Your task to perform on an android device: uninstall "HBO Max: Stream TV & Movies" Image 0: 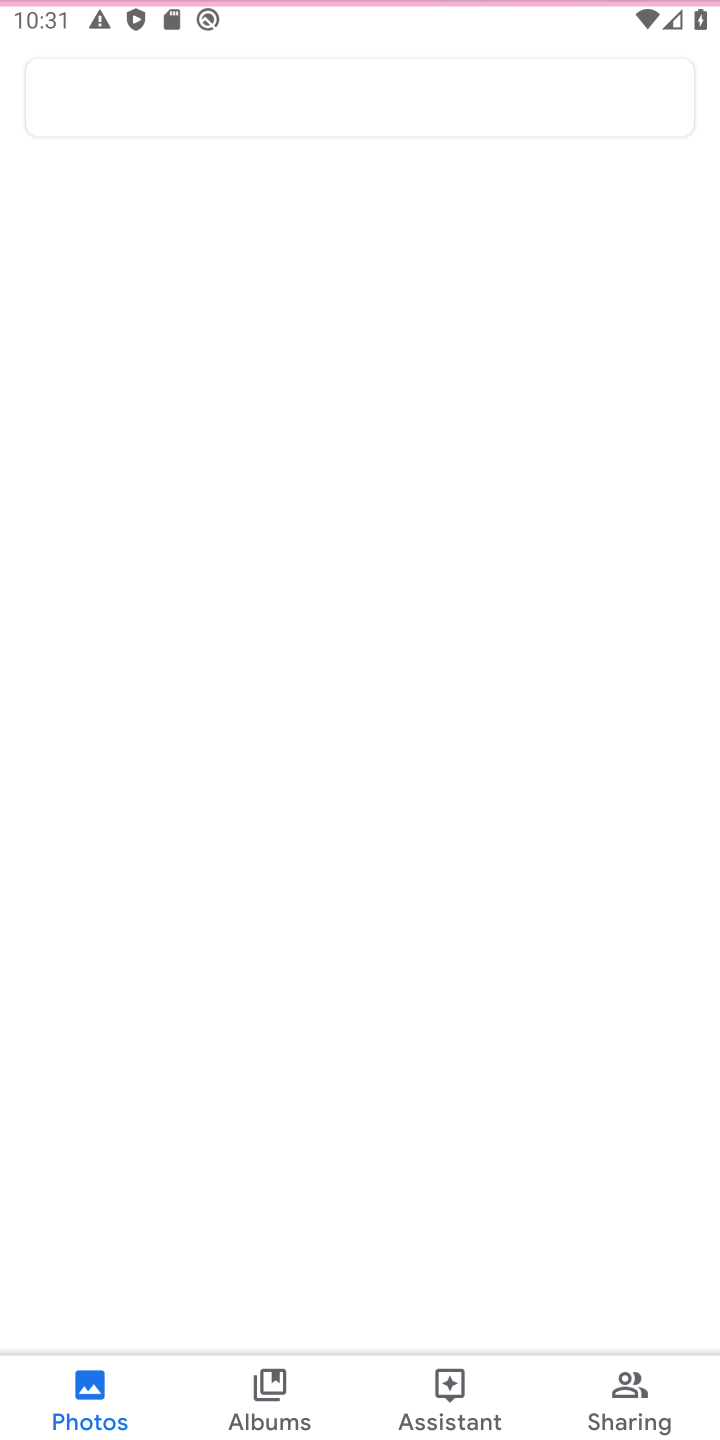
Step 0: press home button
Your task to perform on an android device: uninstall "HBO Max: Stream TV & Movies" Image 1: 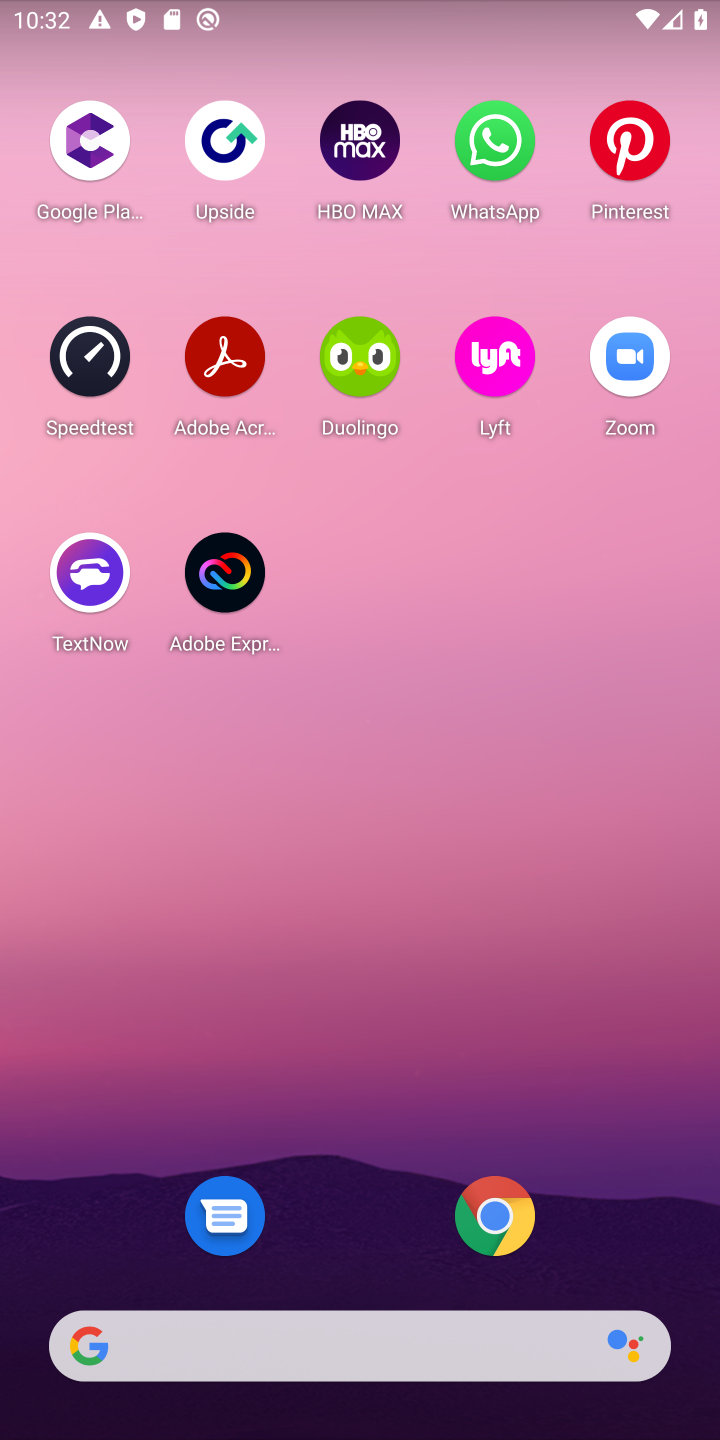
Step 1: drag from (472, 431) to (516, 0)
Your task to perform on an android device: uninstall "HBO Max: Stream TV & Movies" Image 2: 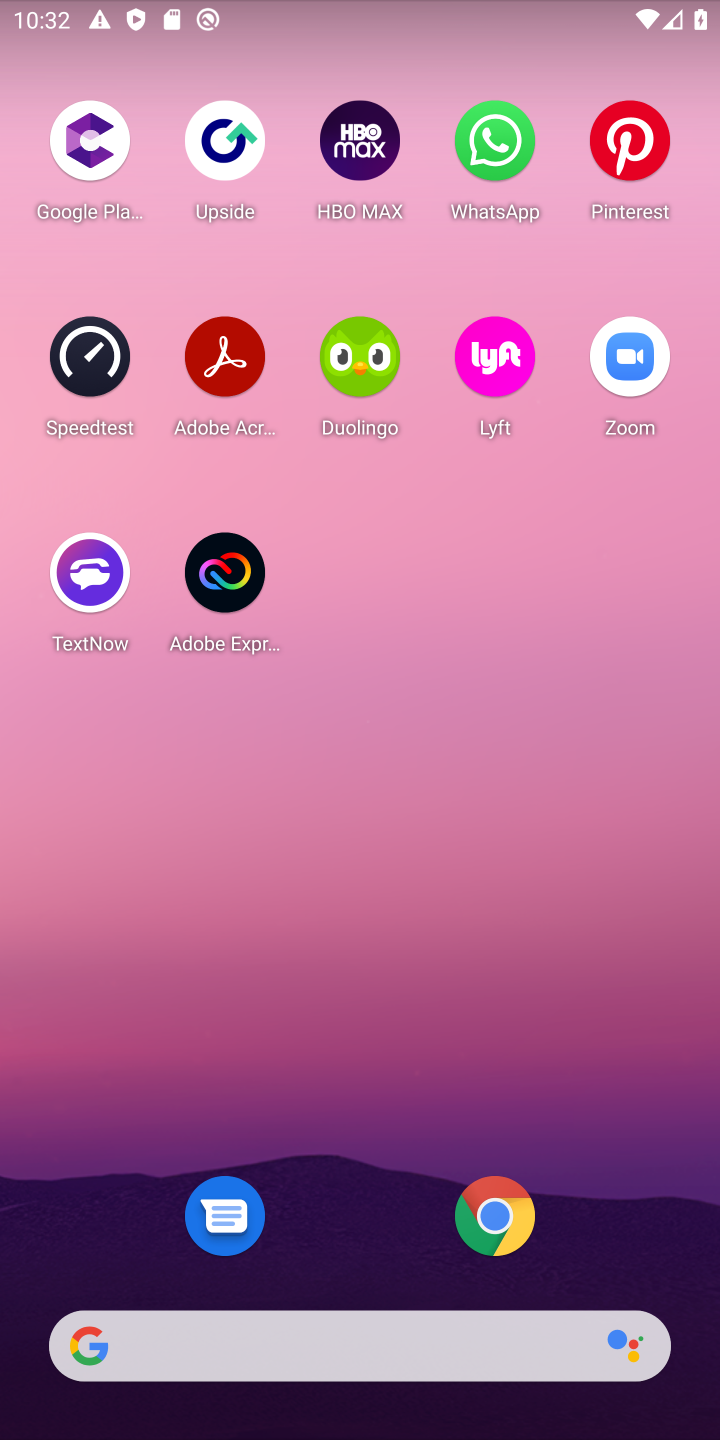
Step 2: drag from (294, 1353) to (351, 10)
Your task to perform on an android device: uninstall "HBO Max: Stream TV & Movies" Image 3: 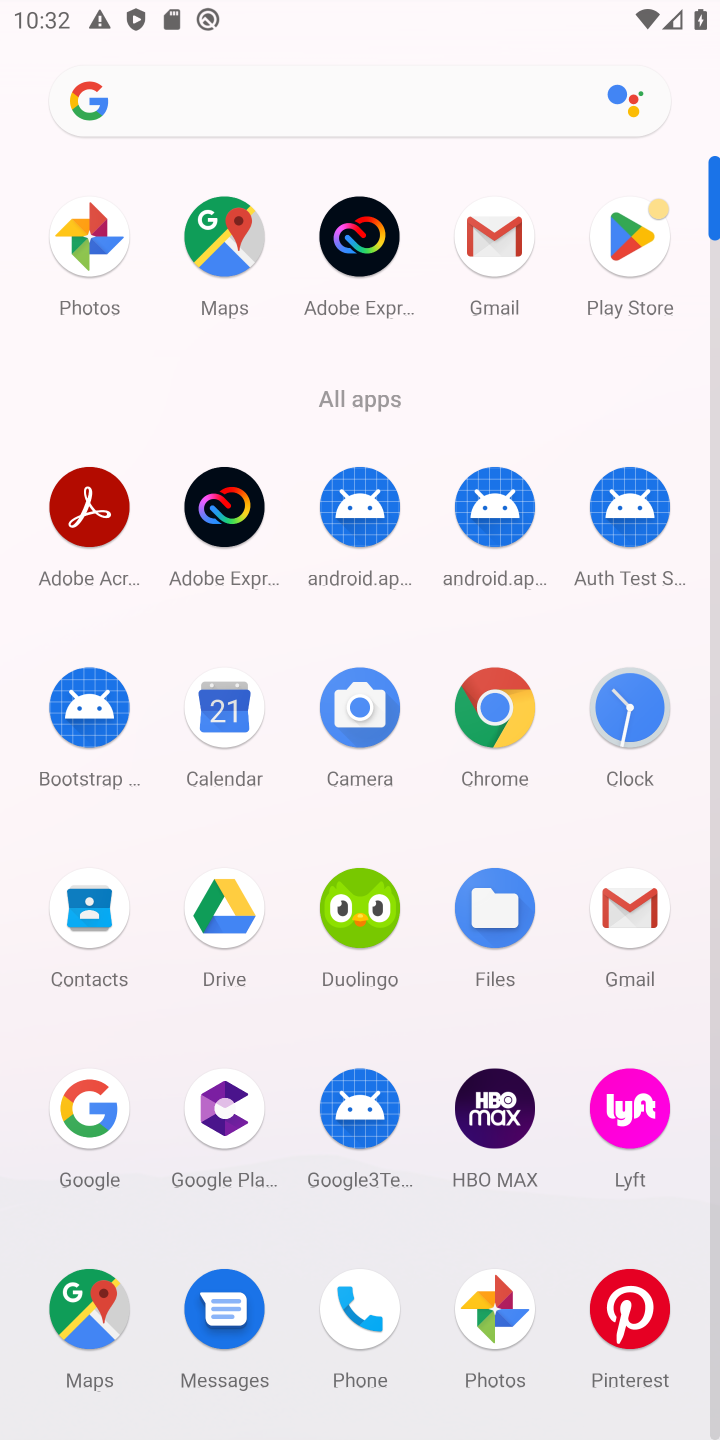
Step 3: click (626, 225)
Your task to perform on an android device: uninstall "HBO Max: Stream TV & Movies" Image 4: 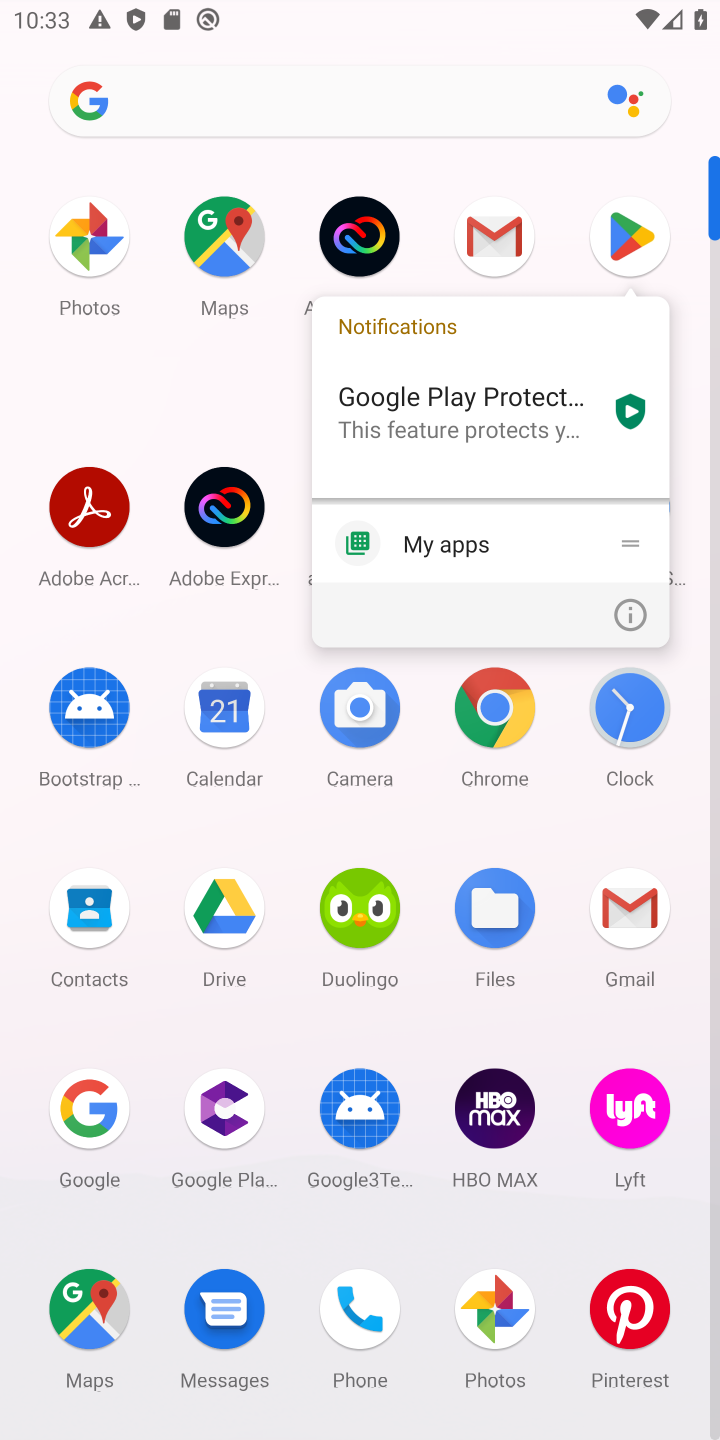
Step 4: click (594, 238)
Your task to perform on an android device: uninstall "HBO Max: Stream TV & Movies" Image 5: 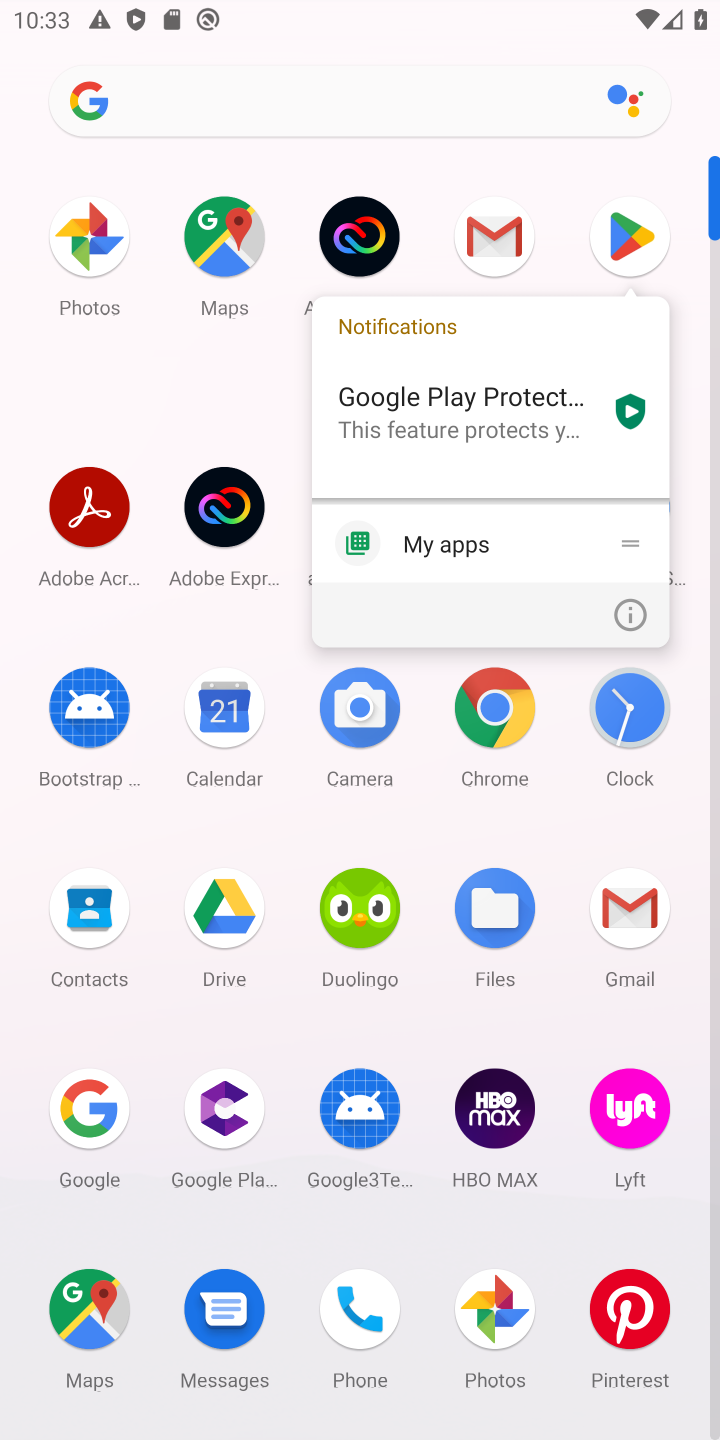
Step 5: click (594, 237)
Your task to perform on an android device: uninstall "HBO Max: Stream TV & Movies" Image 6: 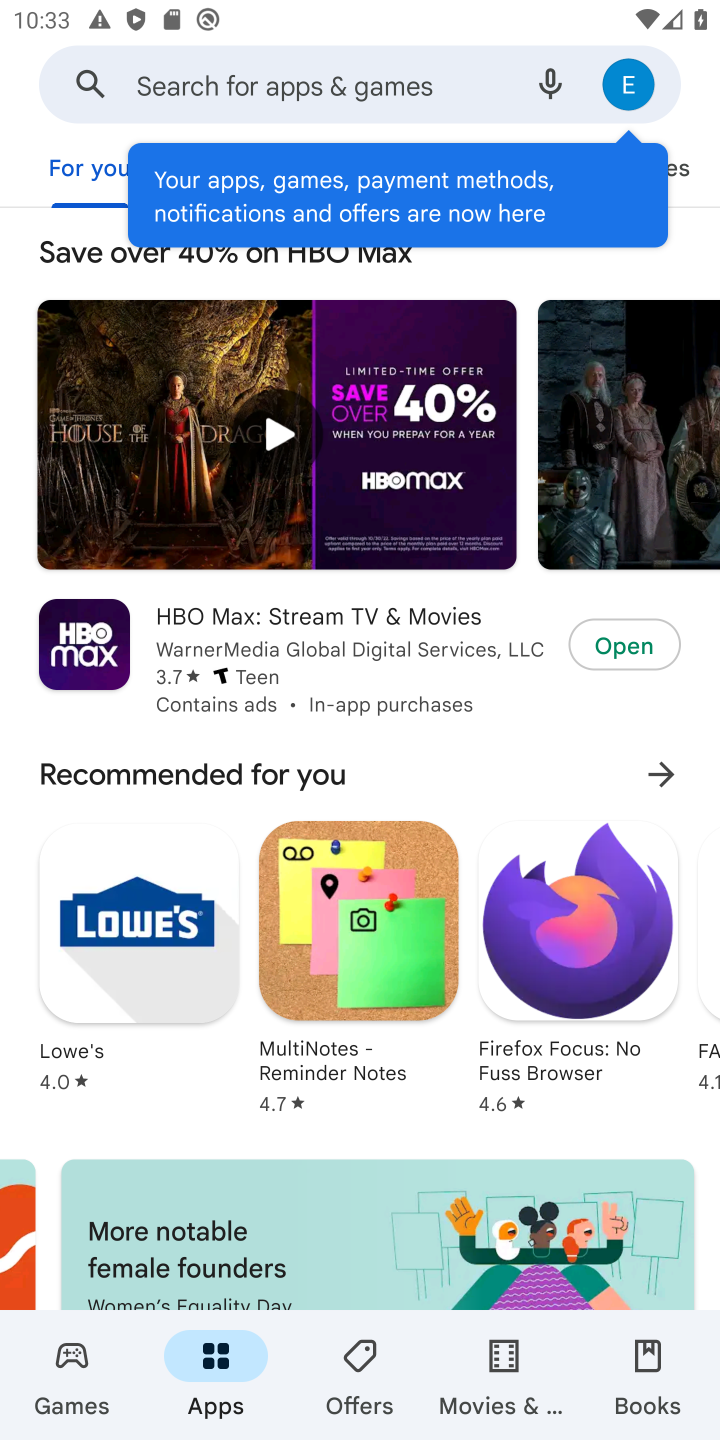
Step 6: click (337, 80)
Your task to perform on an android device: uninstall "HBO Max: Stream TV & Movies" Image 7: 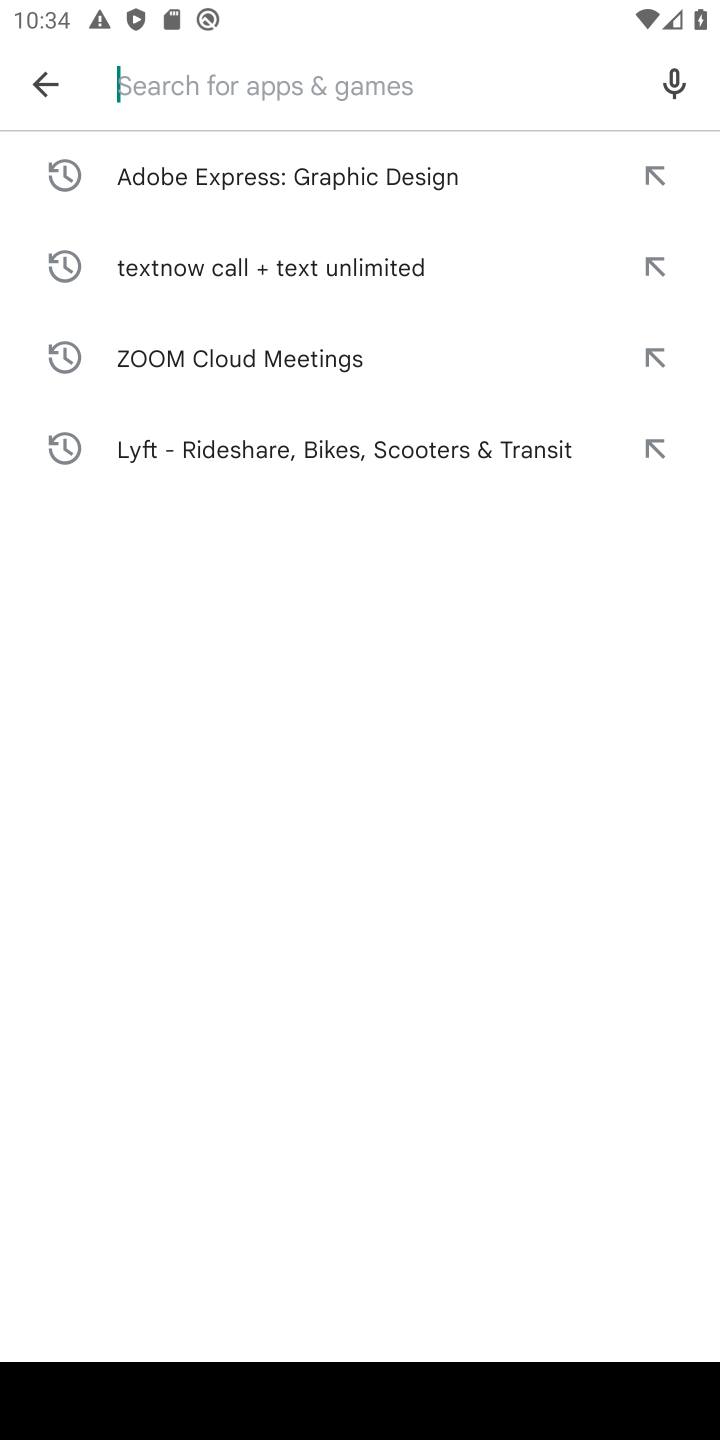
Step 7: type "HBO Max: Stream TV & Movies"
Your task to perform on an android device: uninstall "HBO Max: Stream TV & Movies" Image 8: 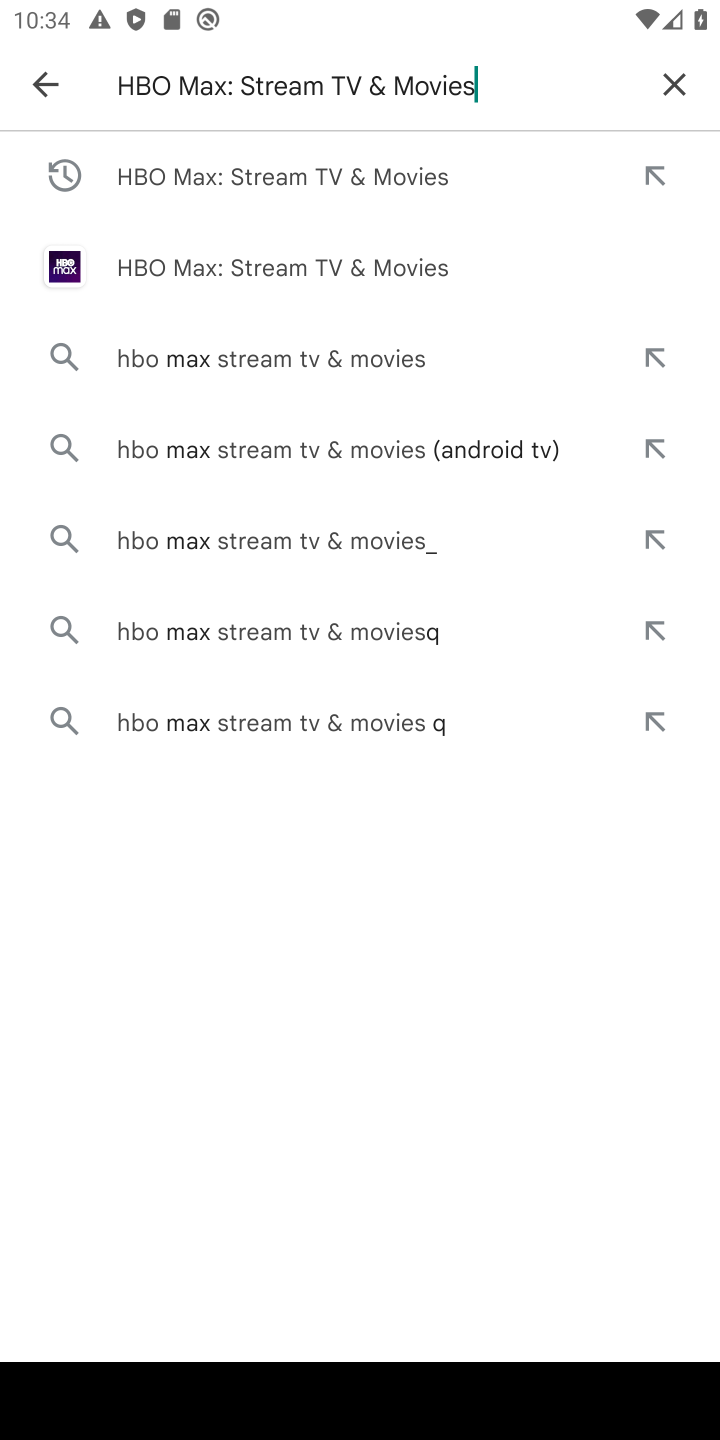
Step 8: press enter
Your task to perform on an android device: uninstall "HBO Max: Stream TV & Movies" Image 9: 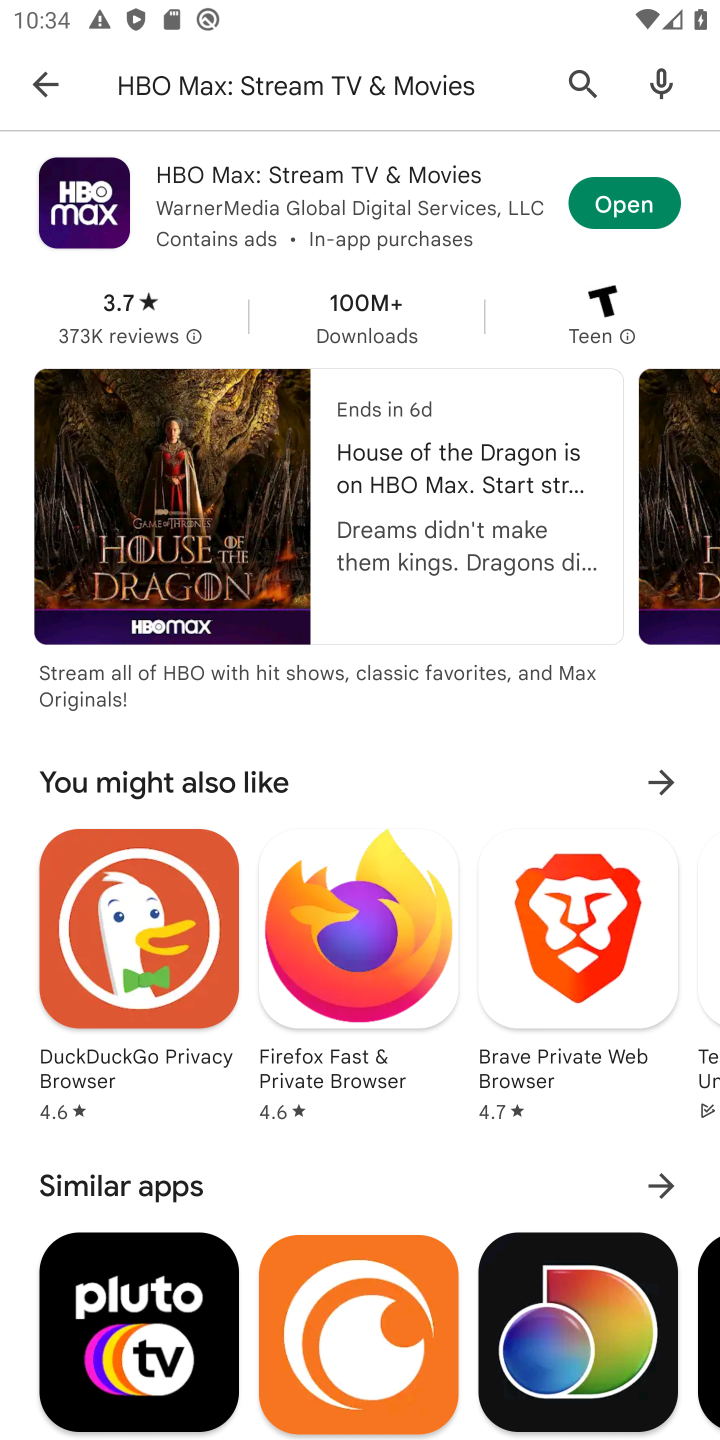
Step 9: click (112, 245)
Your task to perform on an android device: uninstall "HBO Max: Stream TV & Movies" Image 10: 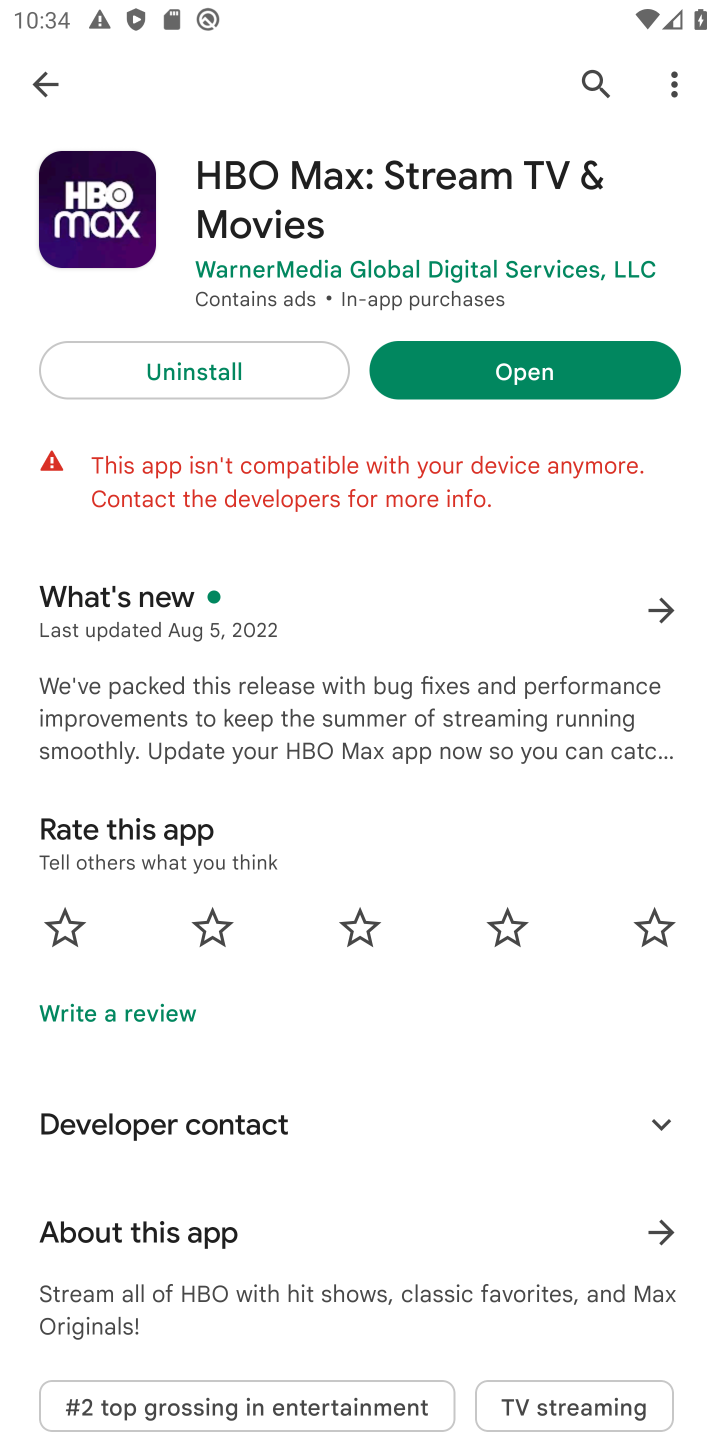
Step 10: click (234, 348)
Your task to perform on an android device: uninstall "HBO Max: Stream TV & Movies" Image 11: 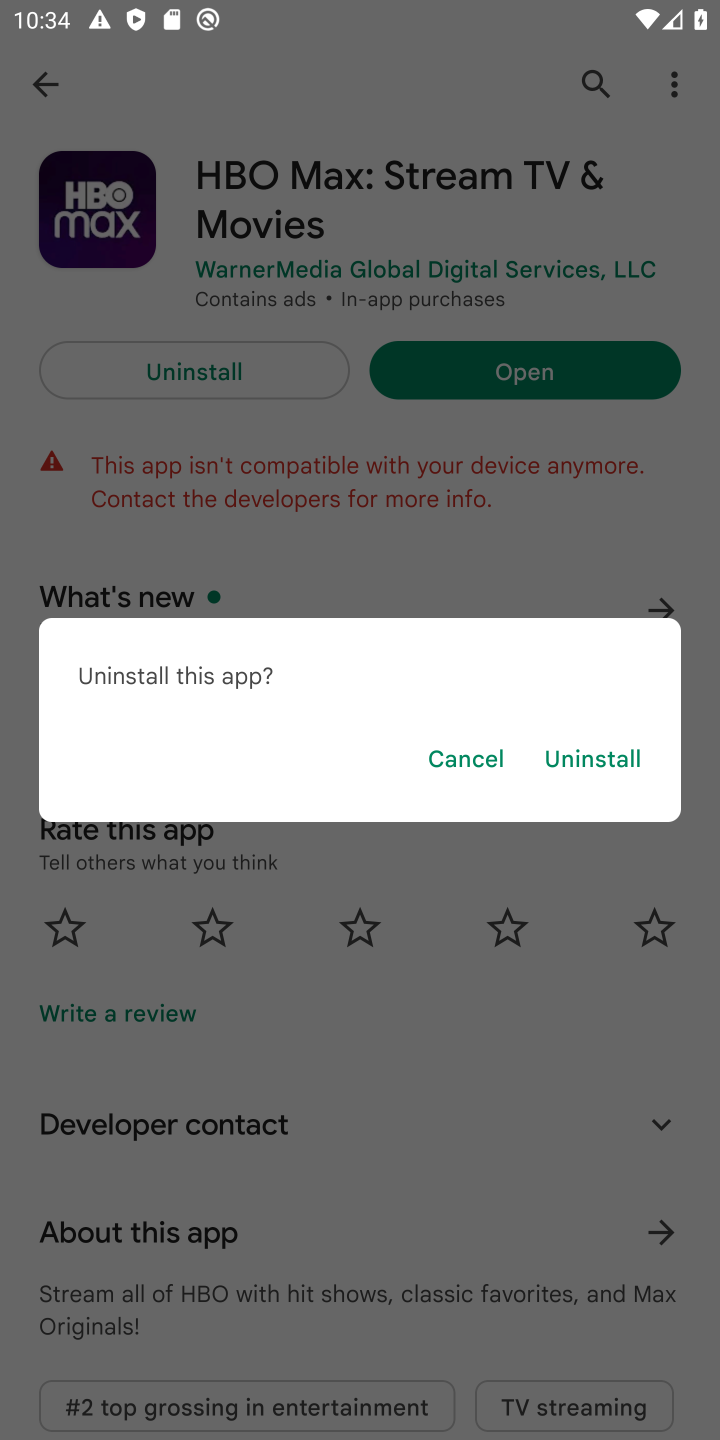
Step 11: click (566, 760)
Your task to perform on an android device: uninstall "HBO Max: Stream TV & Movies" Image 12: 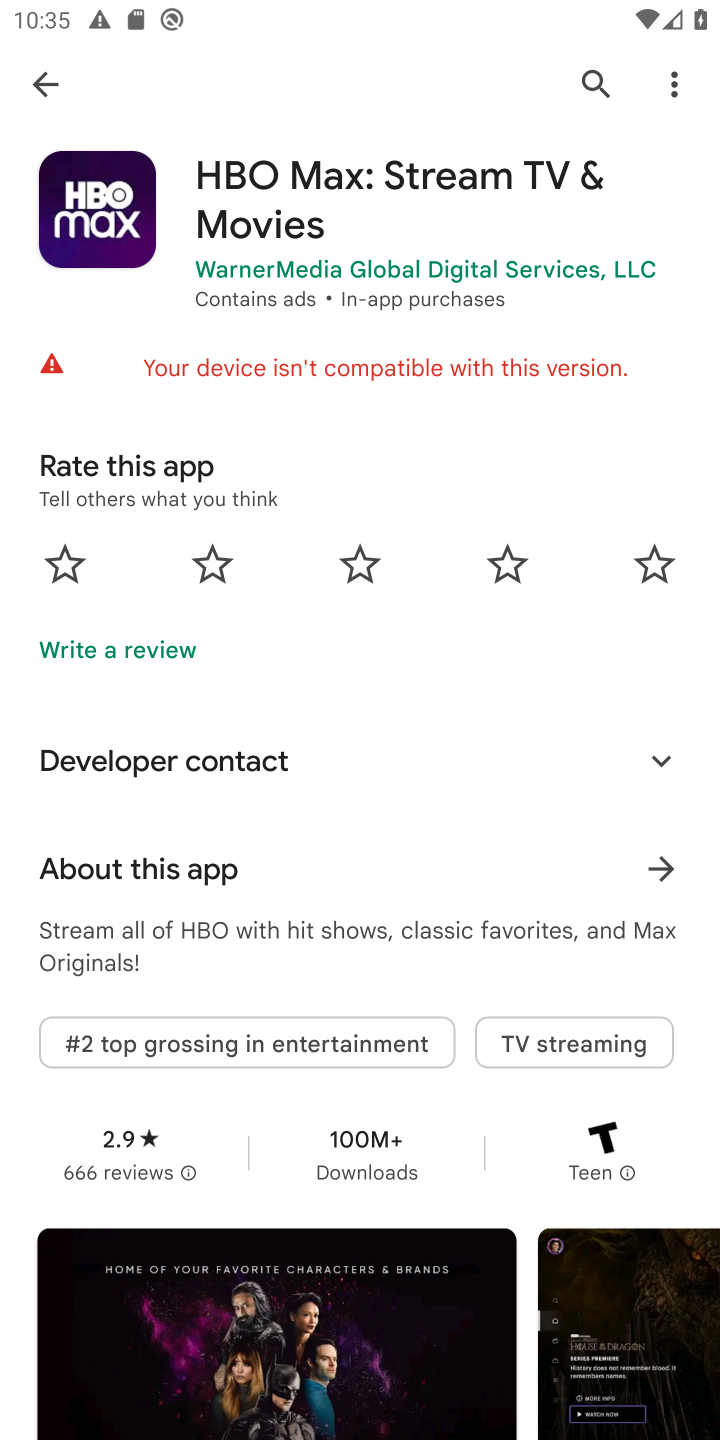
Step 12: task complete